Your task to perform on an android device: Go to Reddit.com Image 0: 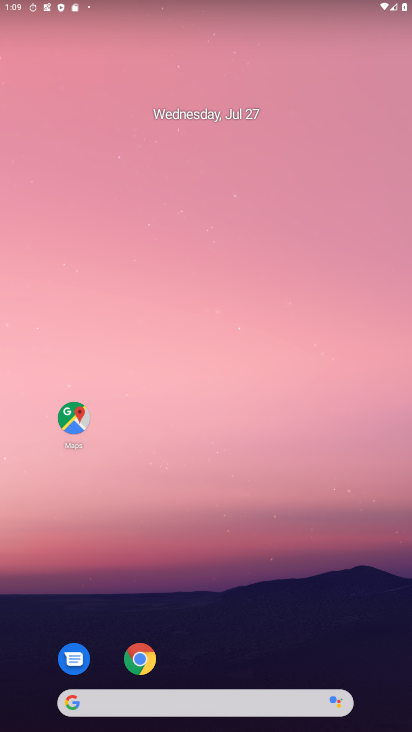
Step 0: click (137, 653)
Your task to perform on an android device: Go to Reddit.com Image 1: 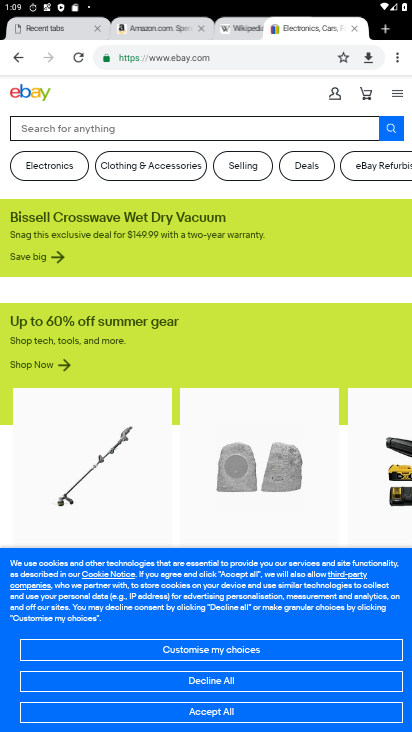
Step 1: click (89, 25)
Your task to perform on an android device: Go to Reddit.com Image 2: 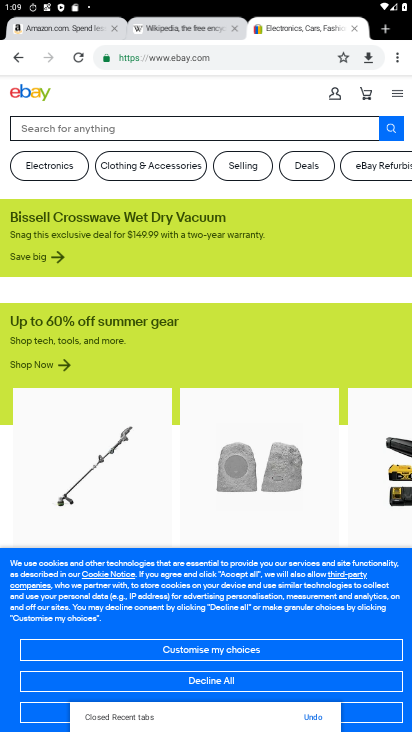
Step 2: click (386, 27)
Your task to perform on an android device: Go to Reddit.com Image 3: 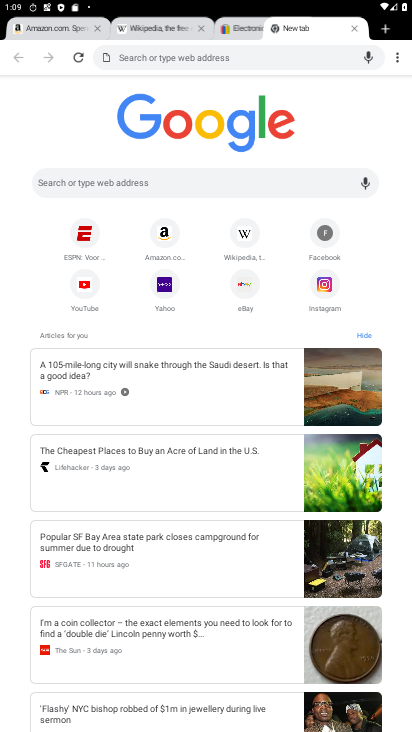
Step 3: type "reddit"
Your task to perform on an android device: Go to Reddit.com Image 4: 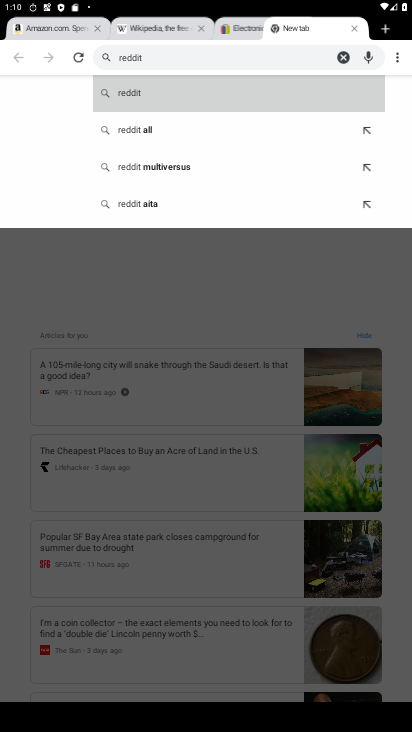
Step 4: click (147, 94)
Your task to perform on an android device: Go to Reddit.com Image 5: 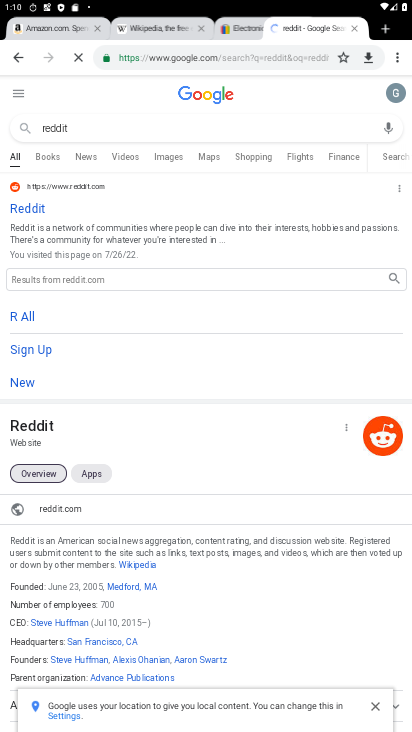
Step 5: click (32, 208)
Your task to perform on an android device: Go to Reddit.com Image 6: 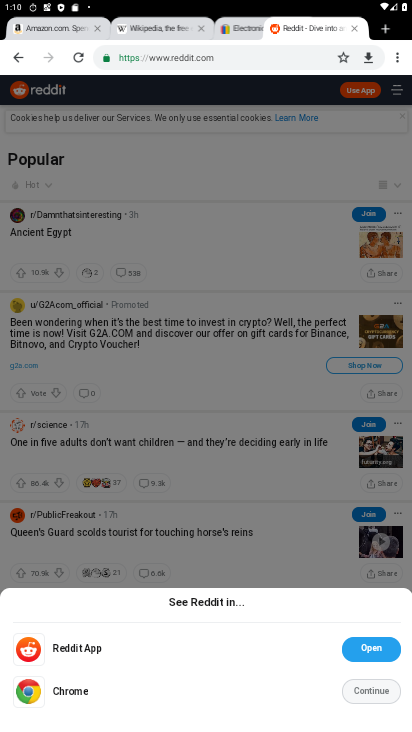
Step 6: click (364, 690)
Your task to perform on an android device: Go to Reddit.com Image 7: 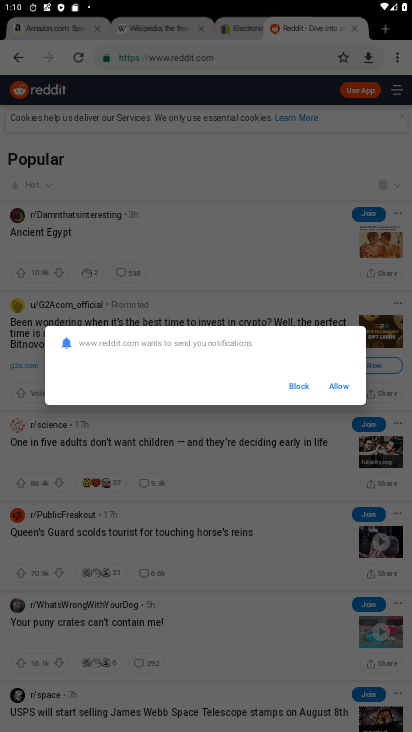
Step 7: task complete